Your task to perform on an android device: turn on translation in the chrome app Image 0: 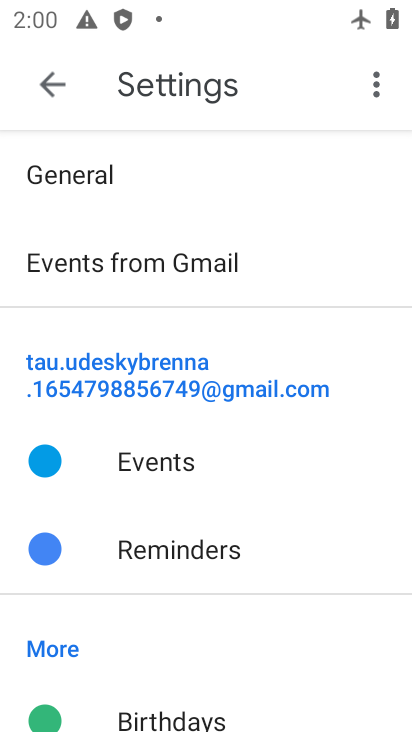
Step 0: press home button
Your task to perform on an android device: turn on translation in the chrome app Image 1: 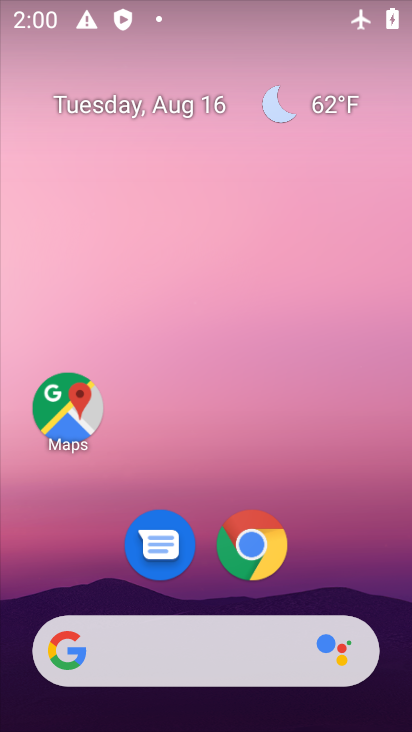
Step 1: click (253, 548)
Your task to perform on an android device: turn on translation in the chrome app Image 2: 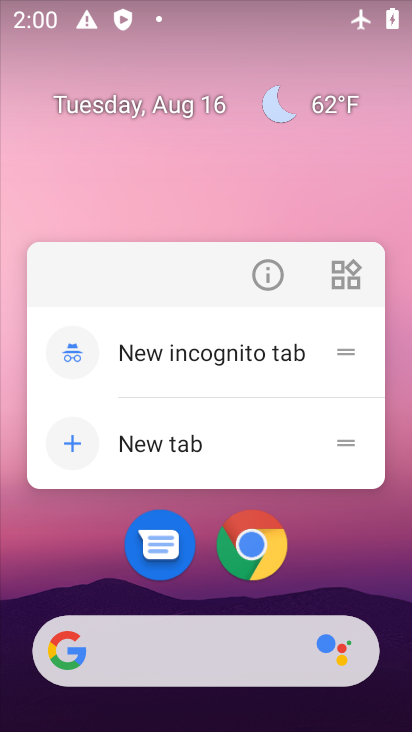
Step 2: click (264, 546)
Your task to perform on an android device: turn on translation in the chrome app Image 3: 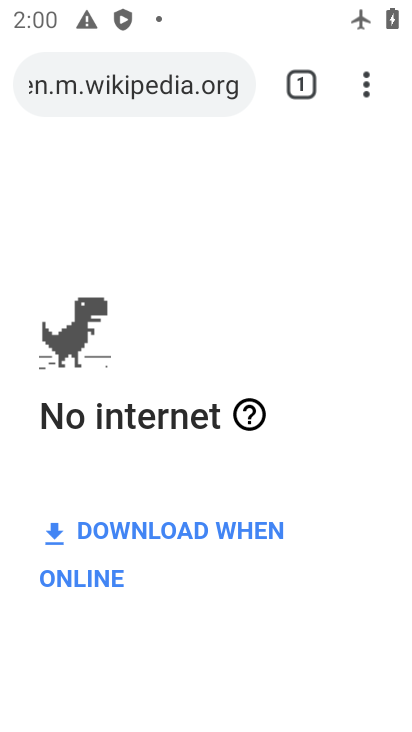
Step 3: click (364, 75)
Your task to perform on an android device: turn on translation in the chrome app Image 4: 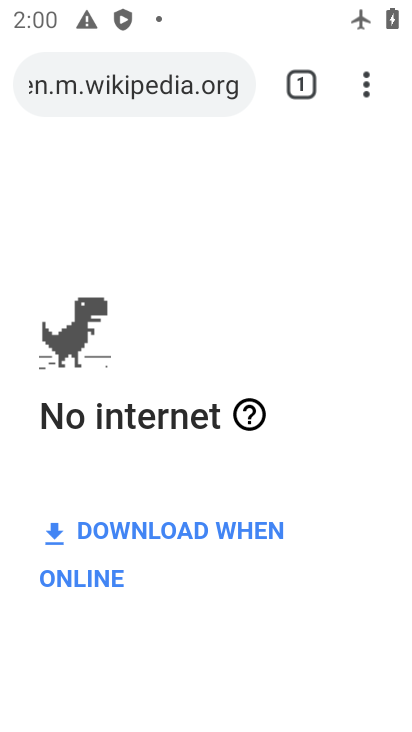
Step 4: click (374, 87)
Your task to perform on an android device: turn on translation in the chrome app Image 5: 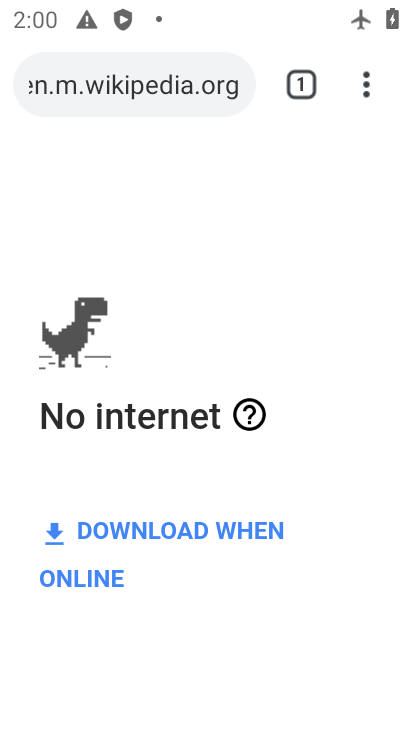
Step 5: click (367, 88)
Your task to perform on an android device: turn on translation in the chrome app Image 6: 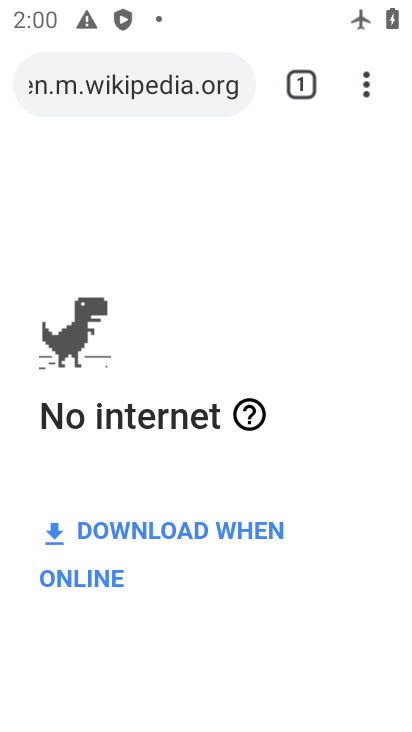
Step 6: click (366, 86)
Your task to perform on an android device: turn on translation in the chrome app Image 7: 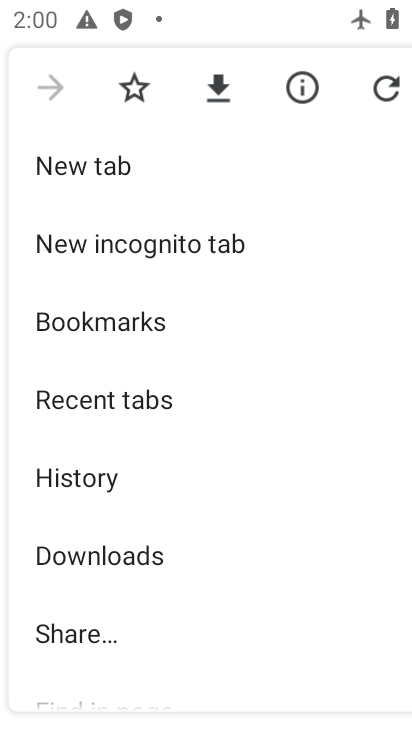
Step 7: drag from (83, 651) to (156, 222)
Your task to perform on an android device: turn on translation in the chrome app Image 8: 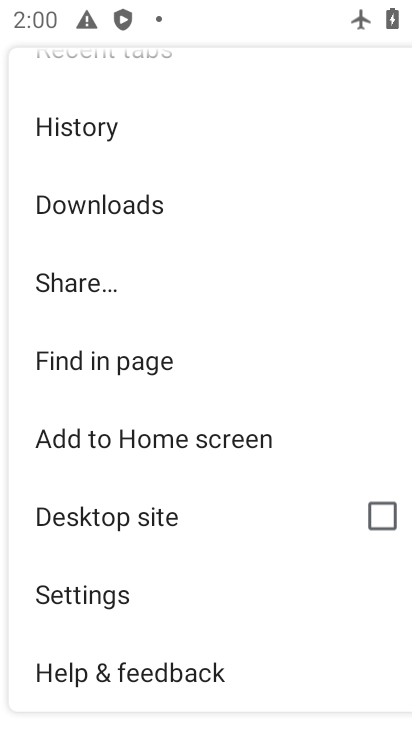
Step 8: click (91, 599)
Your task to perform on an android device: turn on translation in the chrome app Image 9: 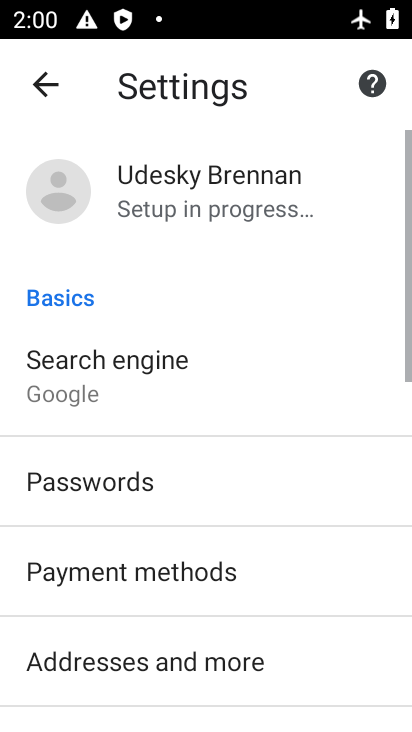
Step 9: drag from (90, 660) to (173, 300)
Your task to perform on an android device: turn on translation in the chrome app Image 10: 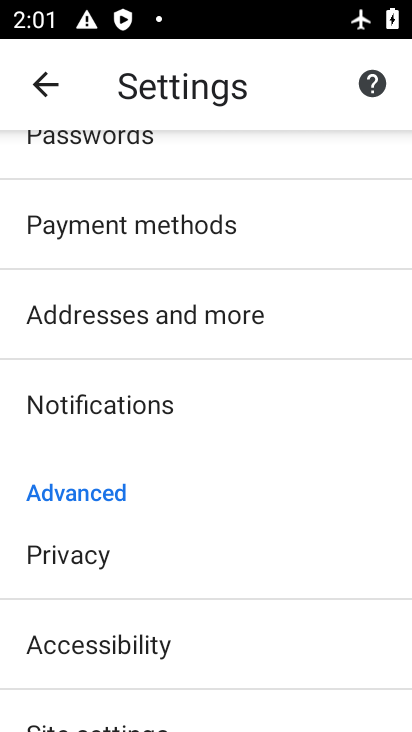
Step 10: drag from (145, 724) to (183, 465)
Your task to perform on an android device: turn on translation in the chrome app Image 11: 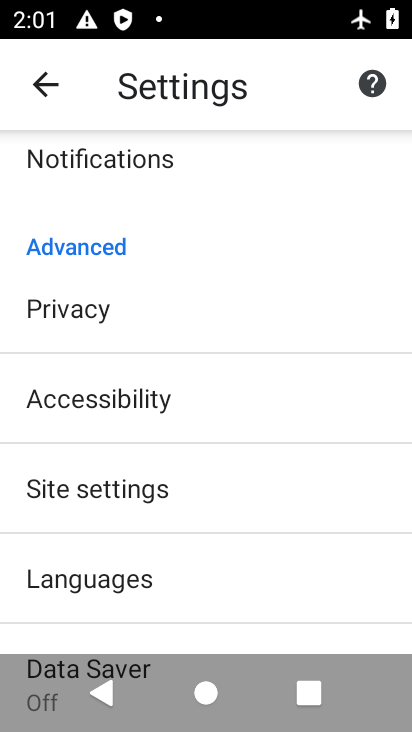
Step 11: click (115, 575)
Your task to perform on an android device: turn on translation in the chrome app Image 12: 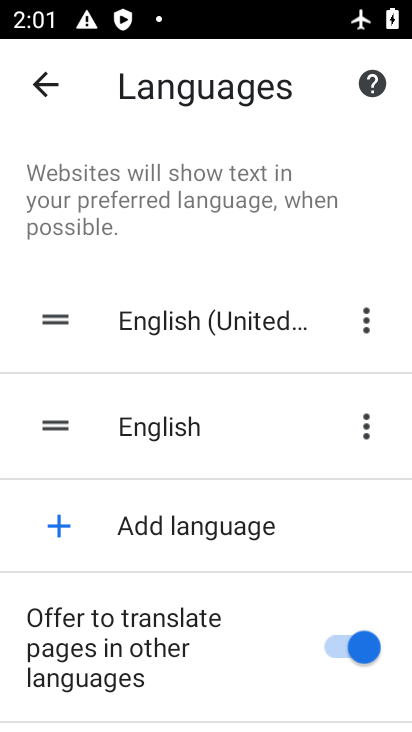
Step 12: task complete